Your task to perform on an android device: turn on bluetooth scan Image 0: 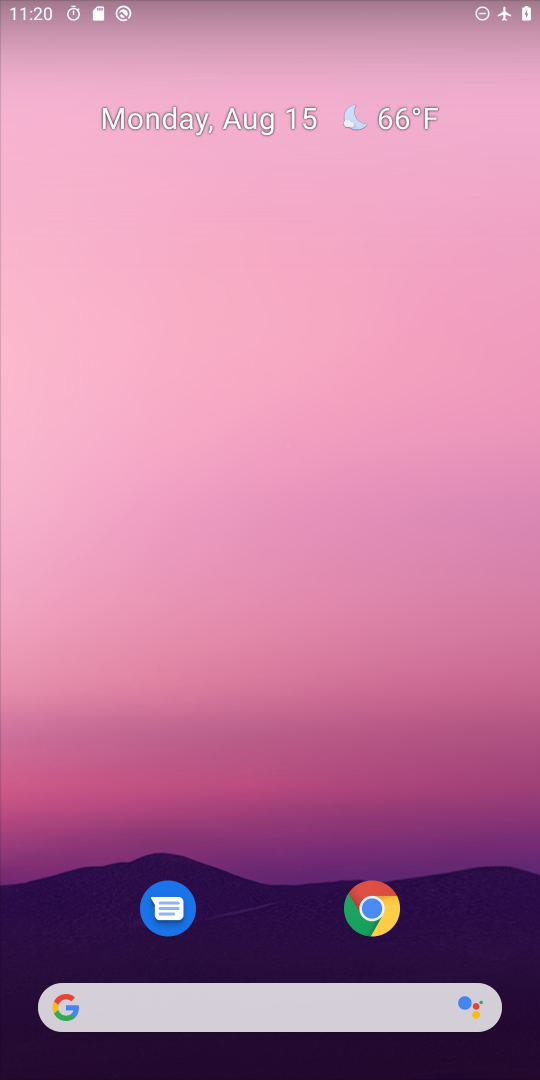
Step 0: drag from (182, 12) to (156, 789)
Your task to perform on an android device: turn on bluetooth scan Image 1: 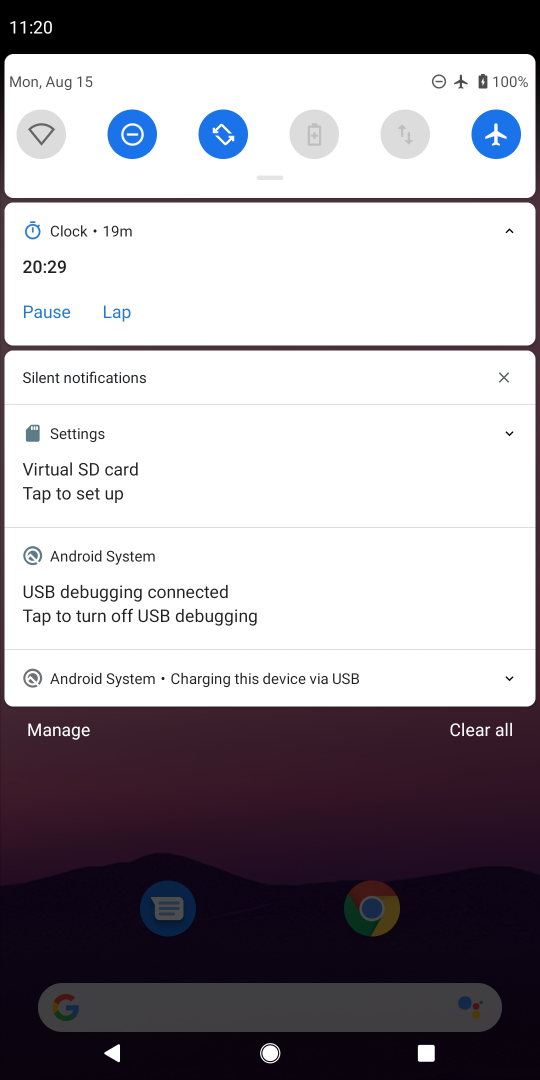
Step 1: click (306, 738)
Your task to perform on an android device: turn on bluetooth scan Image 2: 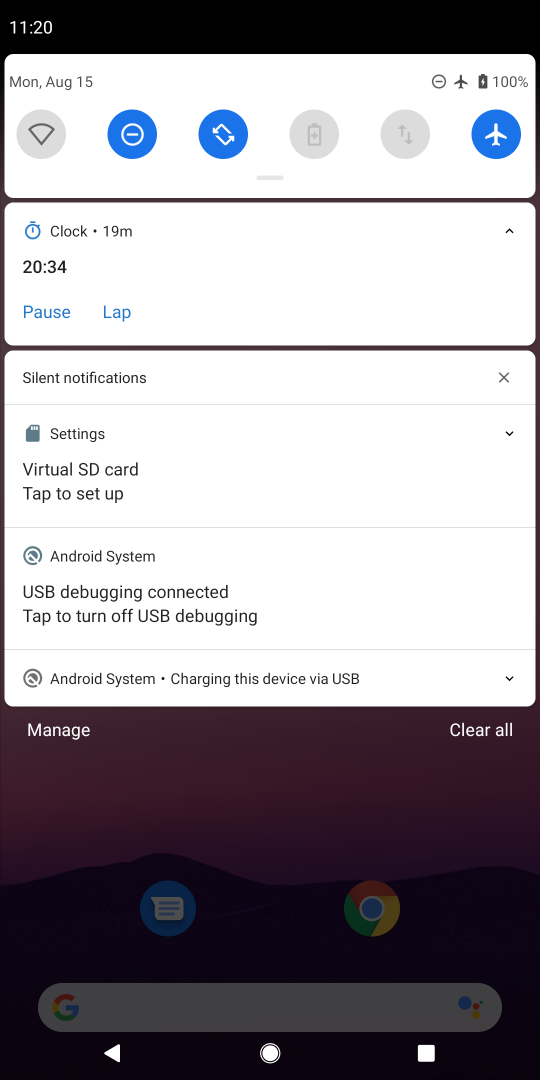
Step 2: click (289, 847)
Your task to perform on an android device: turn on bluetooth scan Image 3: 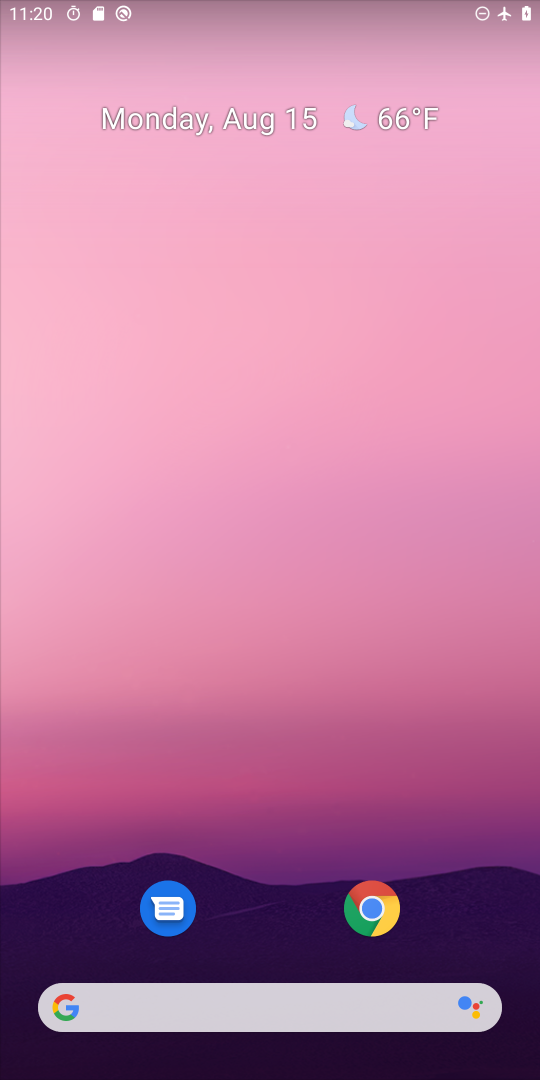
Step 3: drag from (244, 928) to (279, 59)
Your task to perform on an android device: turn on bluetooth scan Image 4: 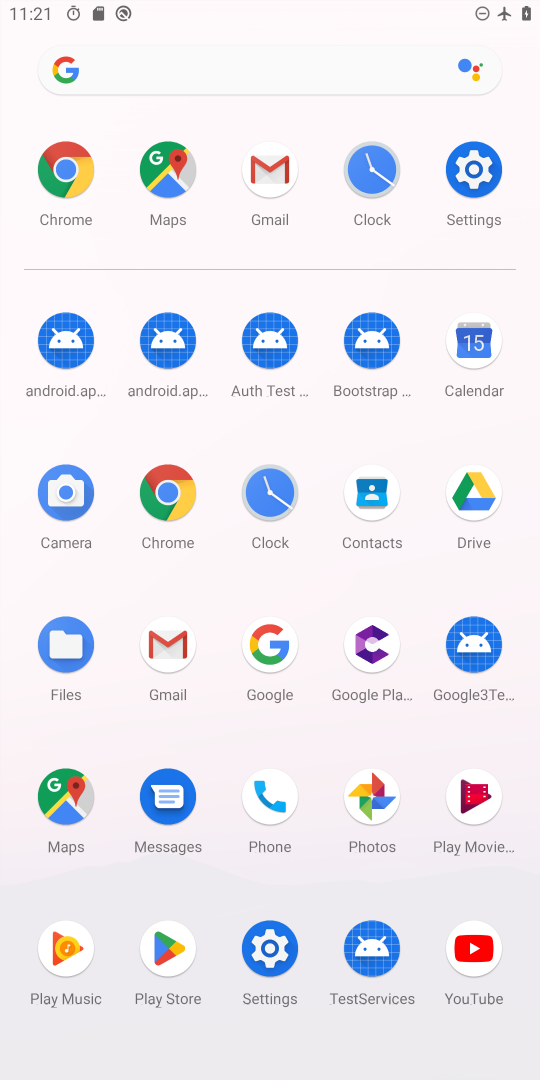
Step 4: click (465, 179)
Your task to perform on an android device: turn on bluetooth scan Image 5: 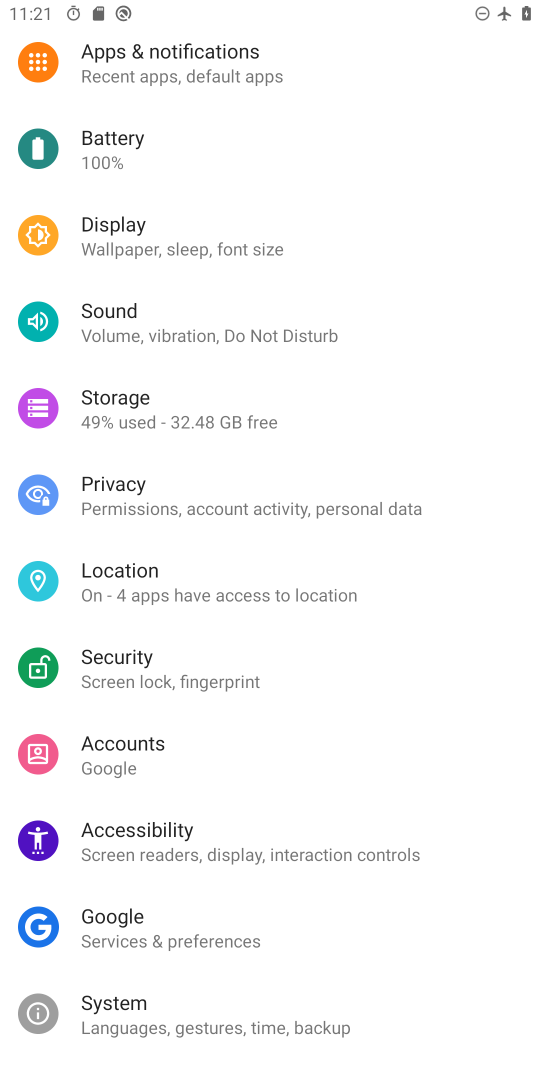
Step 5: click (92, 569)
Your task to perform on an android device: turn on bluetooth scan Image 6: 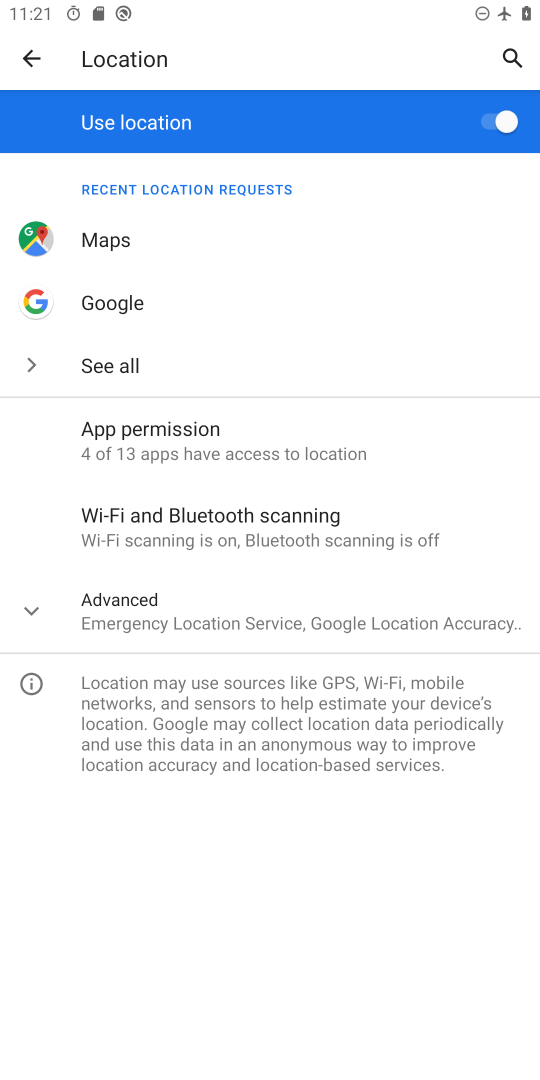
Step 6: click (103, 525)
Your task to perform on an android device: turn on bluetooth scan Image 7: 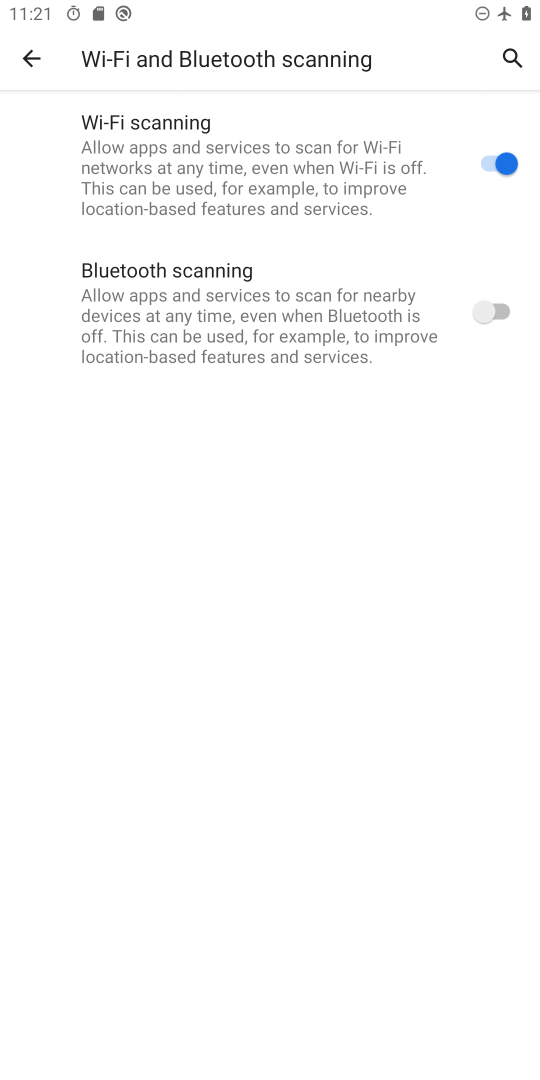
Step 7: click (503, 313)
Your task to perform on an android device: turn on bluetooth scan Image 8: 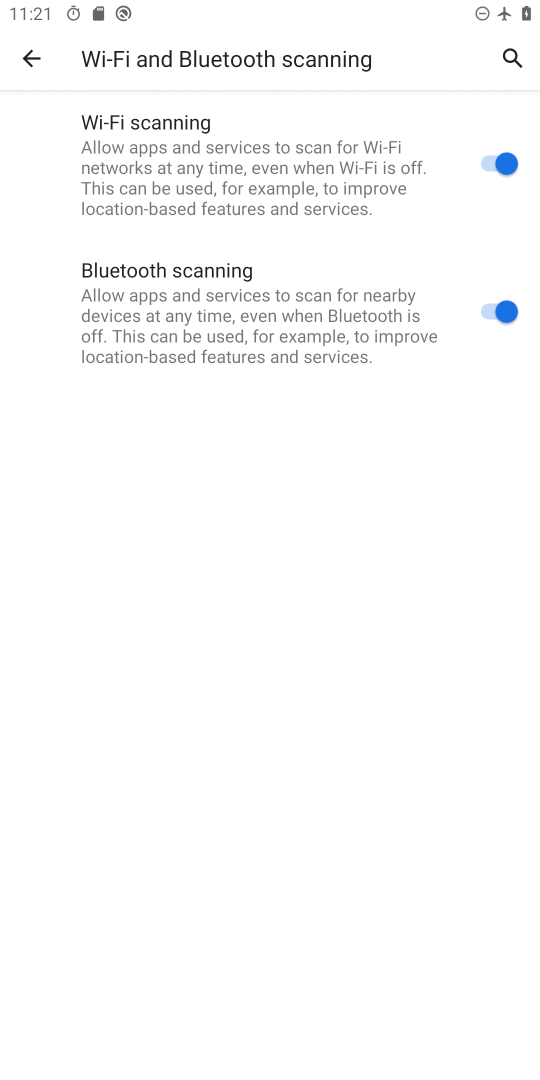
Step 8: task complete